Your task to perform on an android device: create a new album in the google photos Image 0: 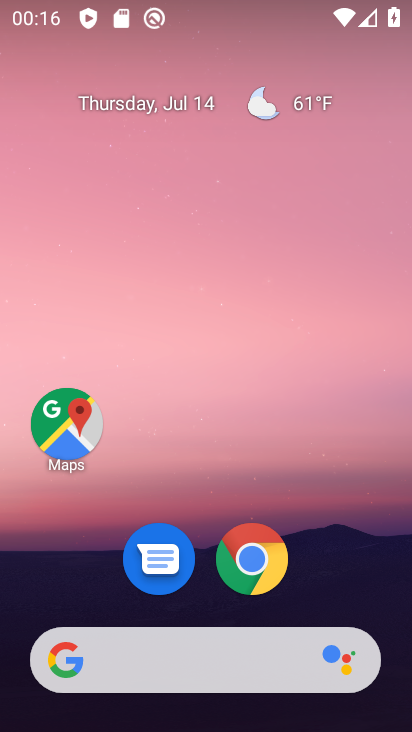
Step 0: drag from (356, 561) to (322, 108)
Your task to perform on an android device: create a new album in the google photos Image 1: 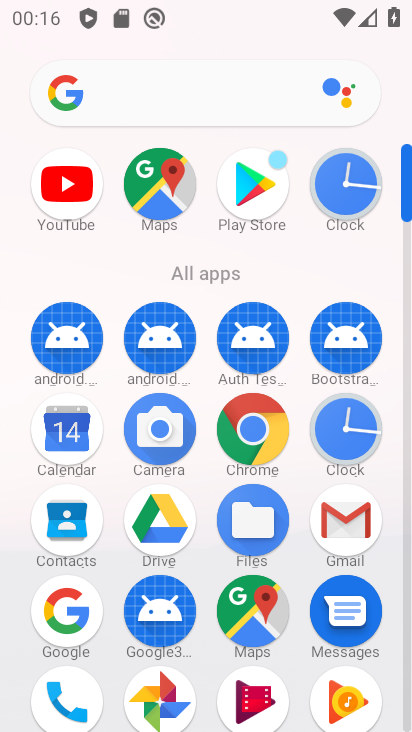
Step 1: drag from (258, 470) to (251, 293)
Your task to perform on an android device: create a new album in the google photos Image 2: 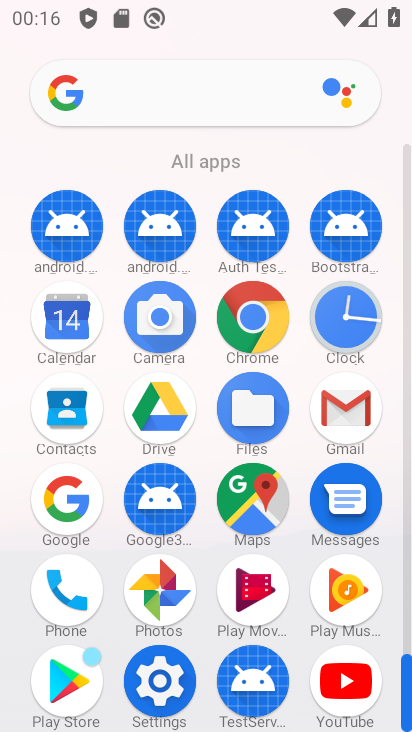
Step 2: click (156, 594)
Your task to perform on an android device: create a new album in the google photos Image 3: 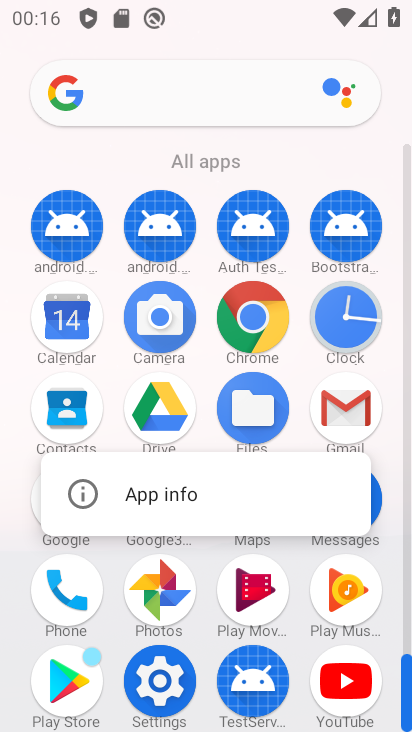
Step 3: click (156, 592)
Your task to perform on an android device: create a new album in the google photos Image 4: 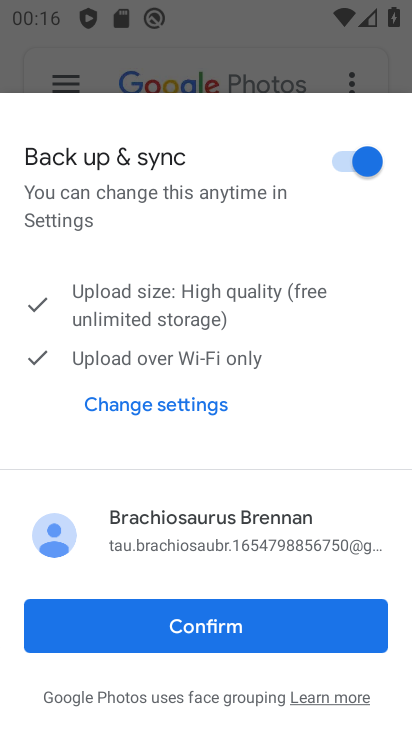
Step 4: click (168, 626)
Your task to perform on an android device: create a new album in the google photos Image 5: 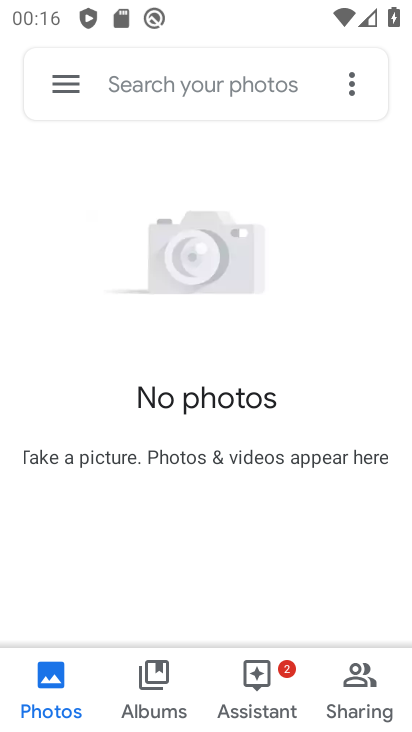
Step 5: click (160, 686)
Your task to perform on an android device: create a new album in the google photos Image 6: 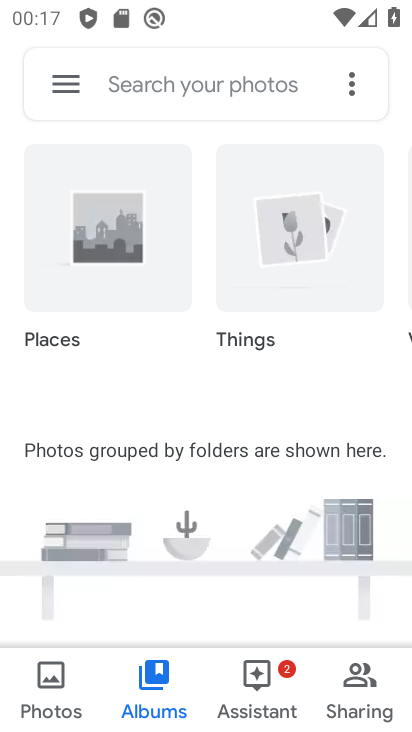
Step 6: task complete